Your task to perform on an android device: Open the web browser Image 0: 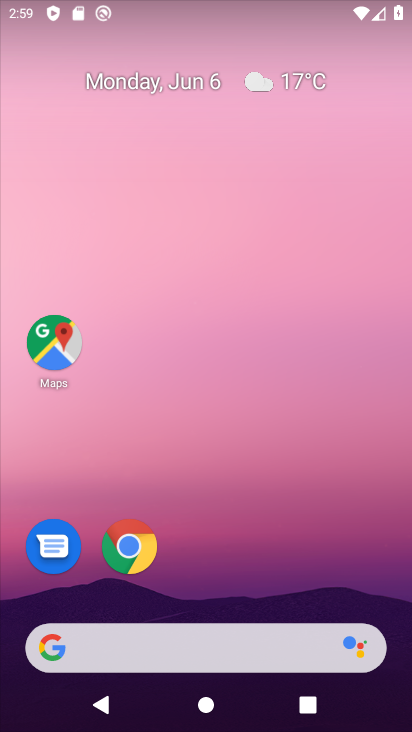
Step 0: drag from (295, 570) to (341, 0)
Your task to perform on an android device: Open the web browser Image 1: 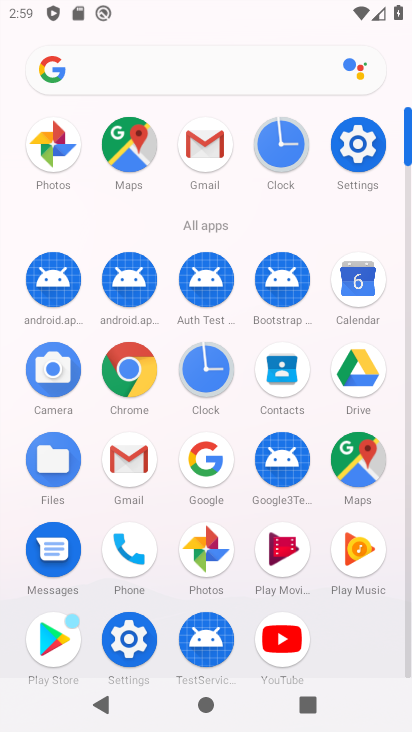
Step 1: drag from (361, 673) to (278, 195)
Your task to perform on an android device: Open the web browser Image 2: 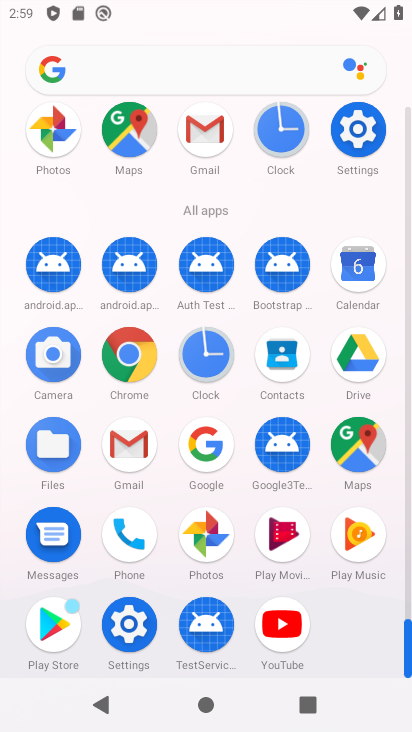
Step 2: click (152, 352)
Your task to perform on an android device: Open the web browser Image 3: 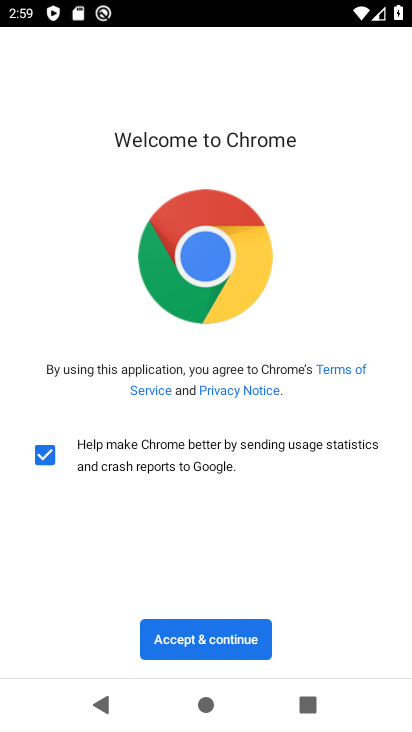
Step 3: click (202, 637)
Your task to perform on an android device: Open the web browser Image 4: 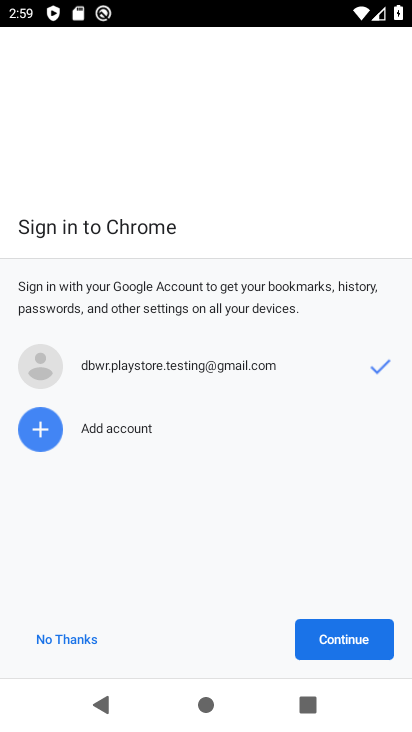
Step 4: click (86, 631)
Your task to perform on an android device: Open the web browser Image 5: 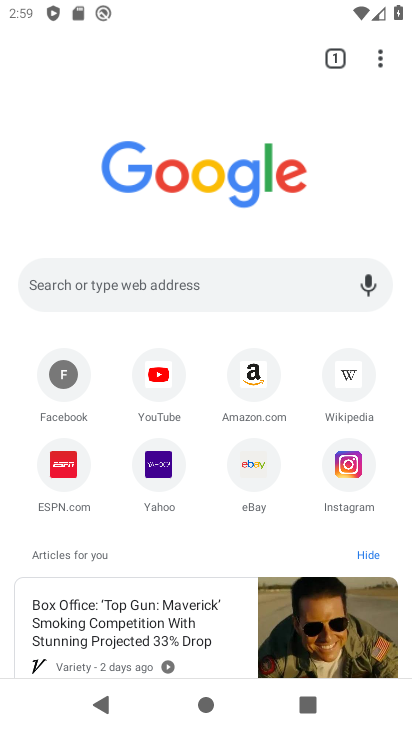
Step 5: click (197, 275)
Your task to perform on an android device: Open the web browser Image 6: 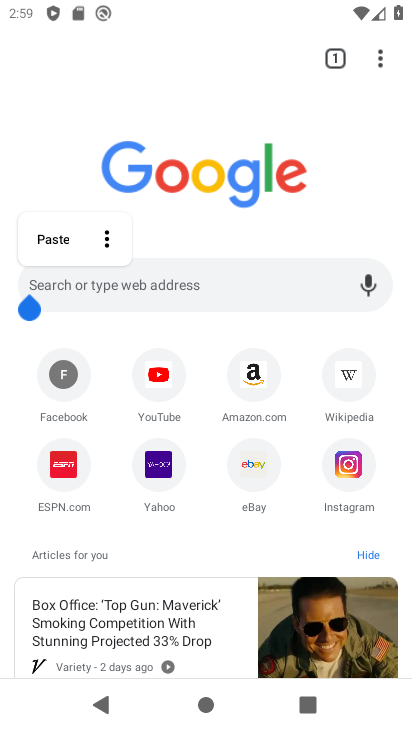
Step 6: task complete